Your task to perform on an android device: toggle show notifications on the lock screen Image 0: 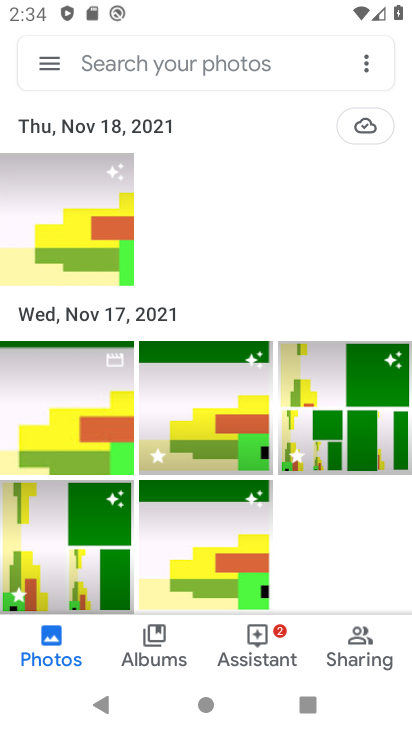
Step 0: press home button
Your task to perform on an android device: toggle show notifications on the lock screen Image 1: 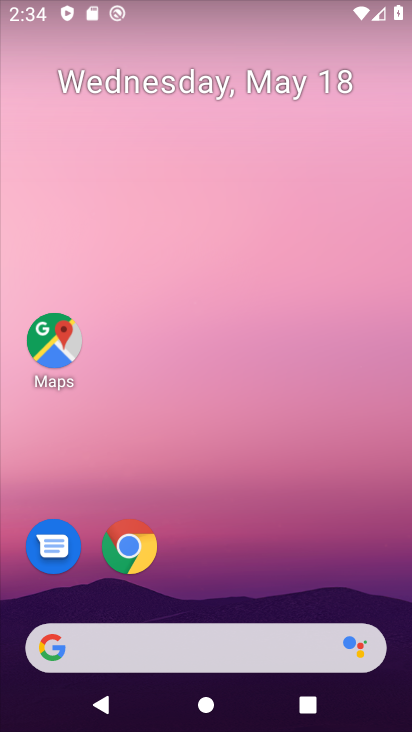
Step 1: drag from (221, 724) to (228, 231)
Your task to perform on an android device: toggle show notifications on the lock screen Image 2: 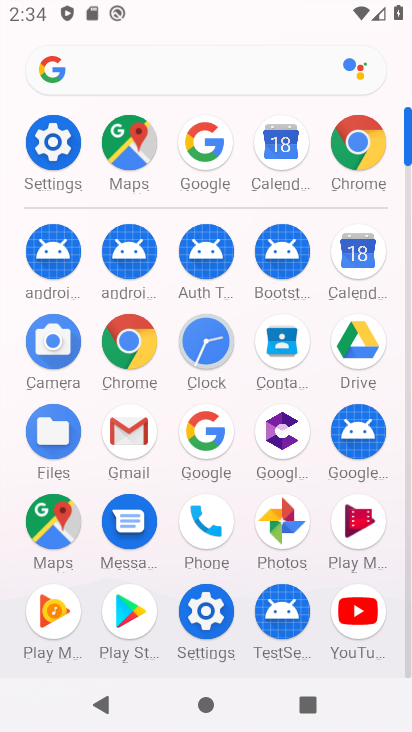
Step 2: click (57, 142)
Your task to perform on an android device: toggle show notifications on the lock screen Image 3: 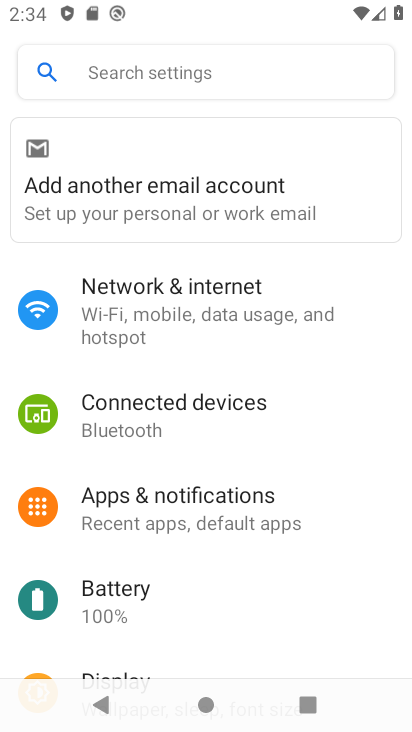
Step 3: click (143, 520)
Your task to perform on an android device: toggle show notifications on the lock screen Image 4: 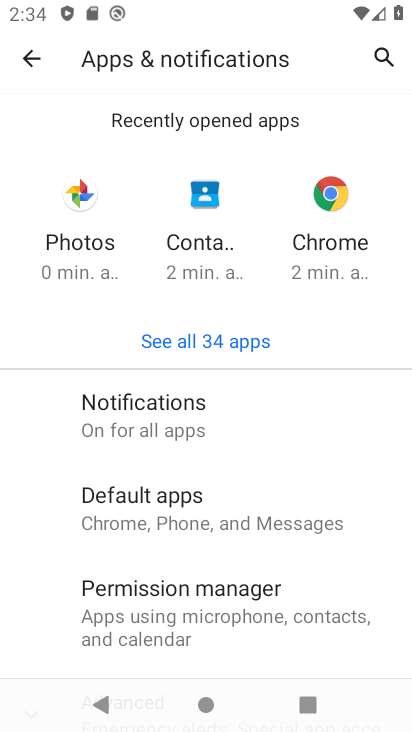
Step 4: click (130, 414)
Your task to perform on an android device: toggle show notifications on the lock screen Image 5: 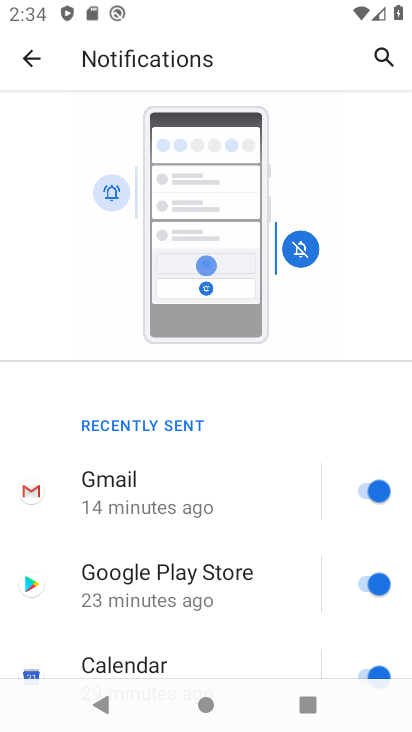
Step 5: drag from (100, 638) to (110, 349)
Your task to perform on an android device: toggle show notifications on the lock screen Image 6: 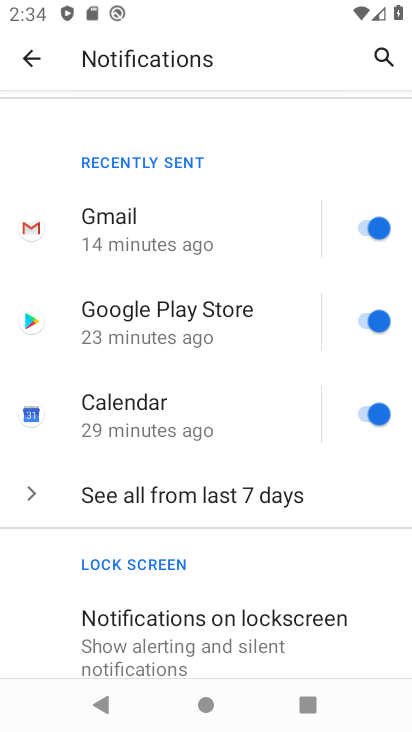
Step 6: drag from (130, 602) to (147, 342)
Your task to perform on an android device: toggle show notifications on the lock screen Image 7: 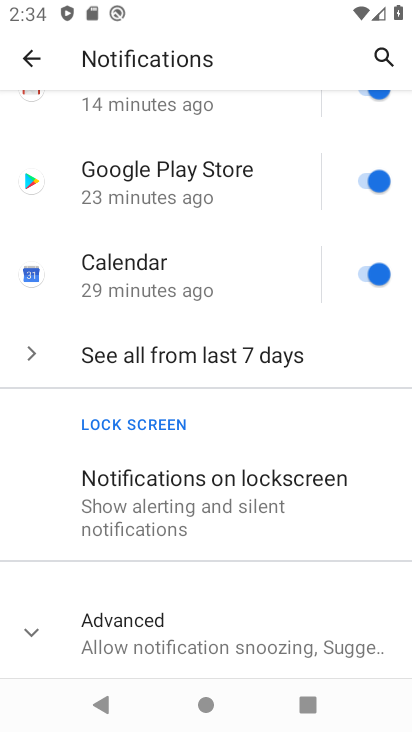
Step 7: drag from (219, 304) to (198, 546)
Your task to perform on an android device: toggle show notifications on the lock screen Image 8: 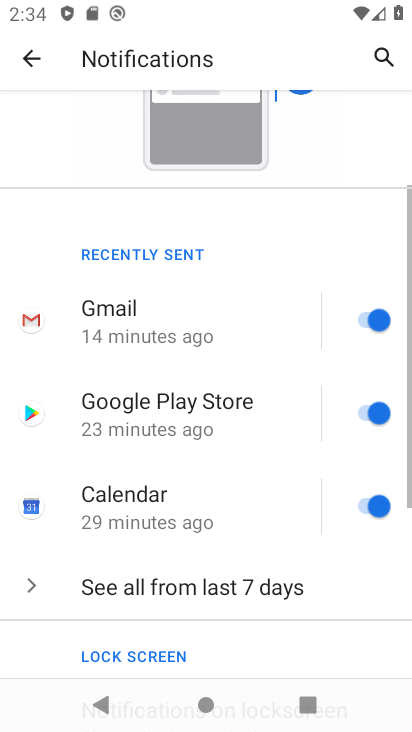
Step 8: drag from (200, 643) to (209, 293)
Your task to perform on an android device: toggle show notifications on the lock screen Image 9: 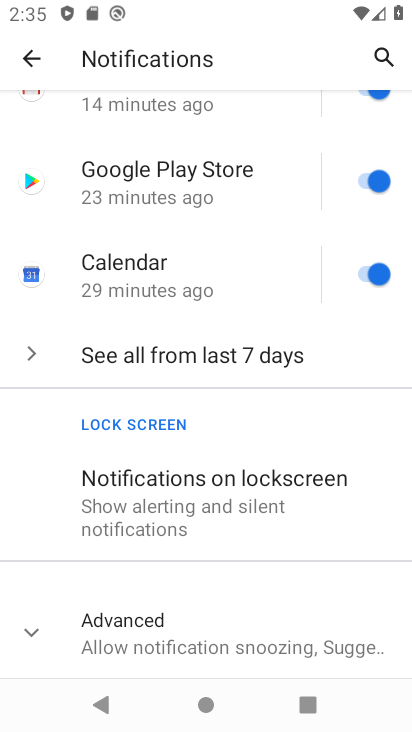
Step 9: click (164, 512)
Your task to perform on an android device: toggle show notifications on the lock screen Image 10: 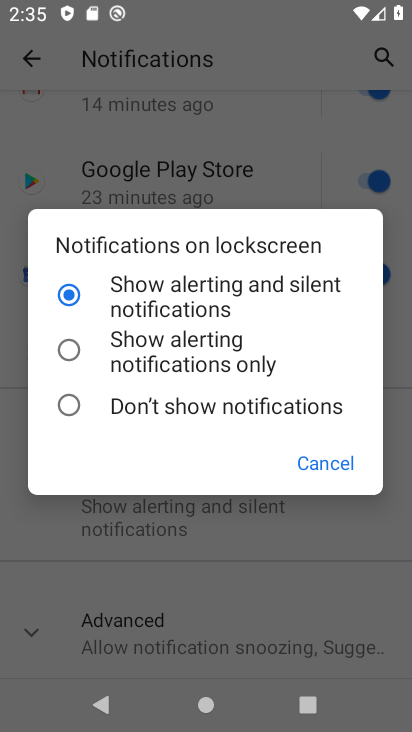
Step 10: click (71, 350)
Your task to perform on an android device: toggle show notifications on the lock screen Image 11: 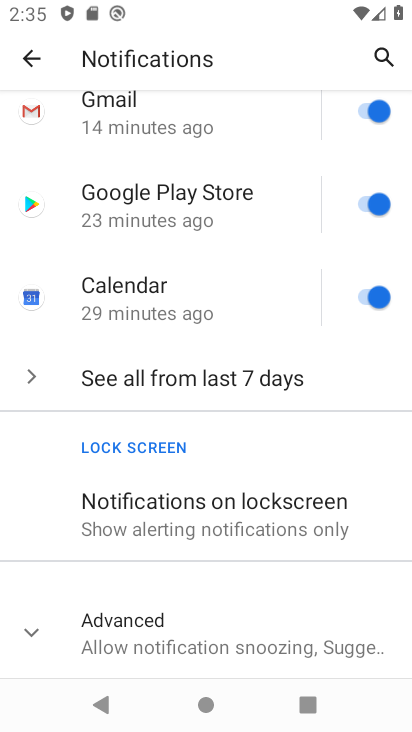
Step 11: task complete